Your task to perform on an android device: turn off location Image 0: 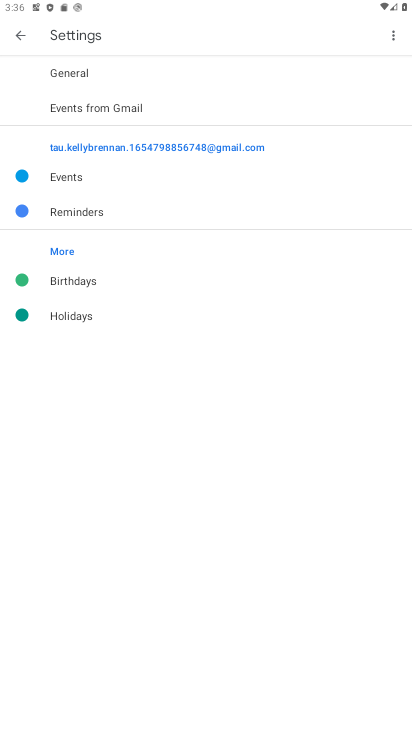
Step 0: press home button
Your task to perform on an android device: turn off location Image 1: 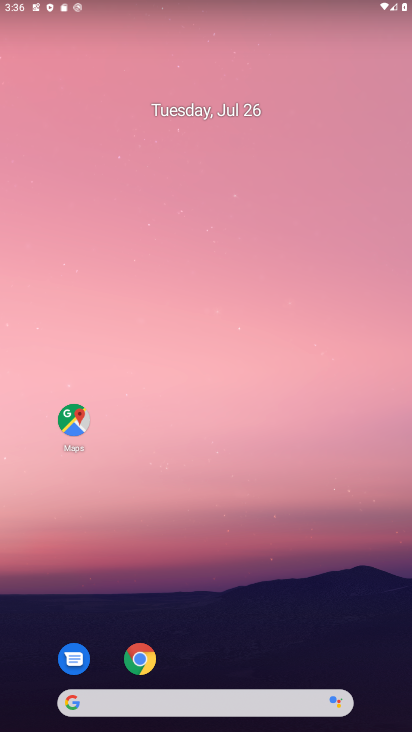
Step 1: drag from (235, 611) to (135, 214)
Your task to perform on an android device: turn off location Image 2: 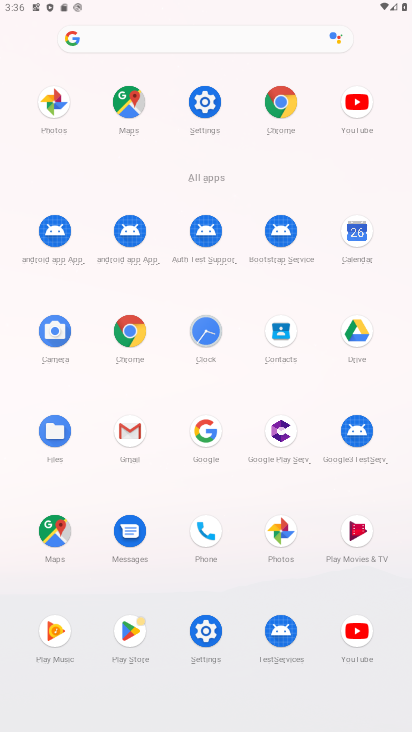
Step 2: click (211, 105)
Your task to perform on an android device: turn off location Image 3: 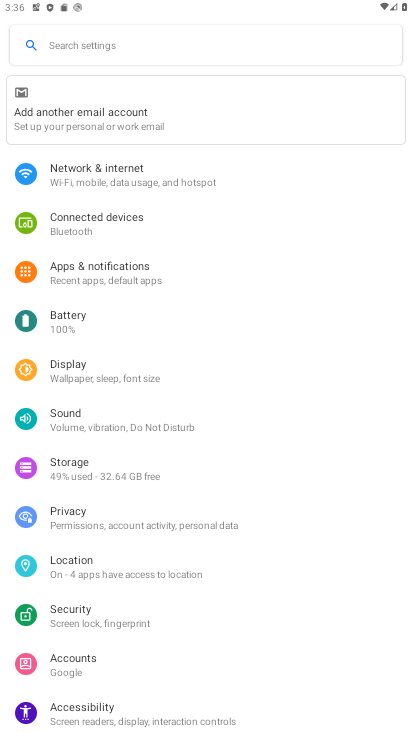
Step 3: click (135, 566)
Your task to perform on an android device: turn off location Image 4: 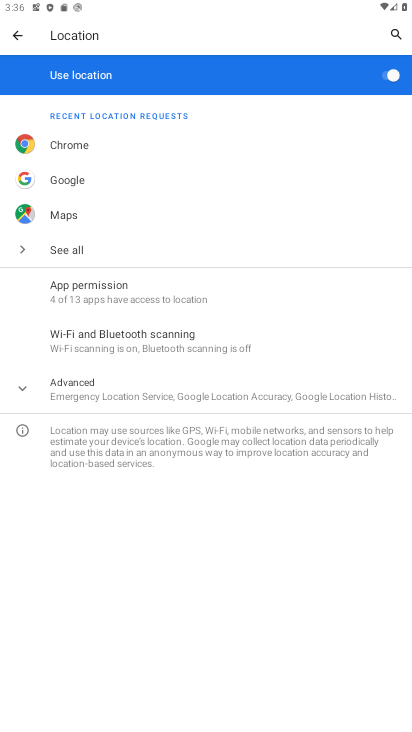
Step 4: click (382, 82)
Your task to perform on an android device: turn off location Image 5: 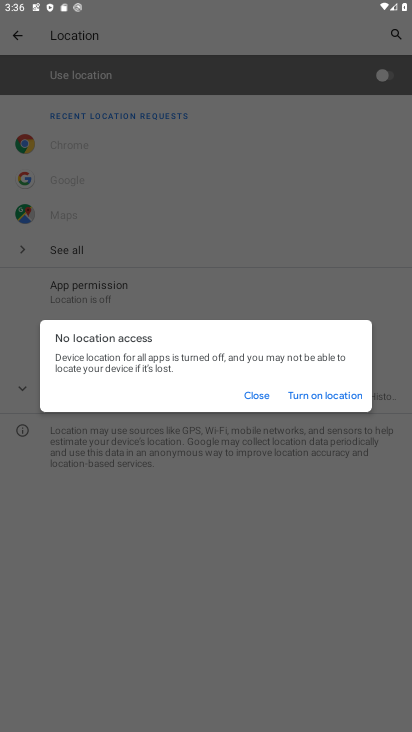
Step 5: task complete